Your task to perform on an android device: Open Youtube and go to the subscriptions tab Image 0: 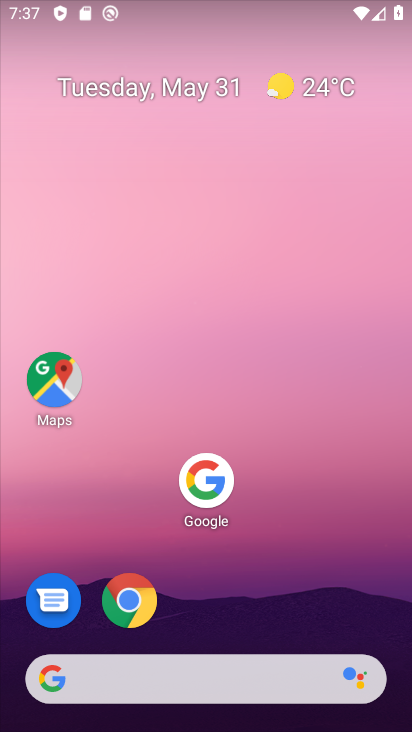
Step 0: drag from (268, 682) to (248, 244)
Your task to perform on an android device: Open Youtube and go to the subscriptions tab Image 1: 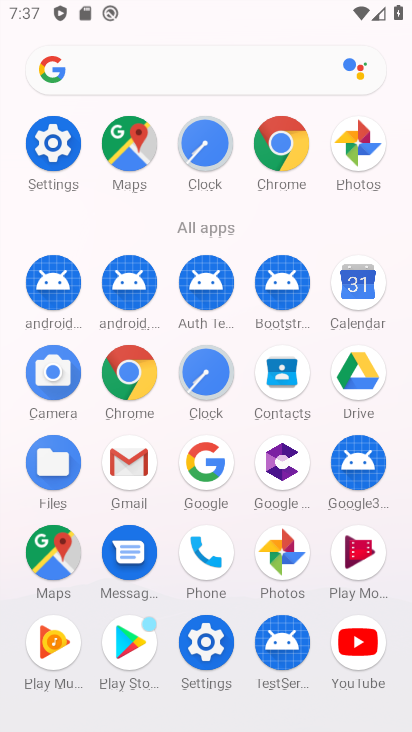
Step 1: click (358, 639)
Your task to perform on an android device: Open Youtube and go to the subscriptions tab Image 2: 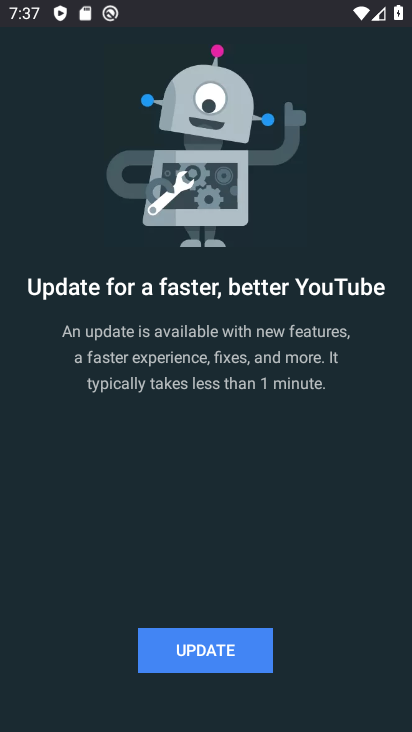
Step 2: click (232, 640)
Your task to perform on an android device: Open Youtube and go to the subscriptions tab Image 3: 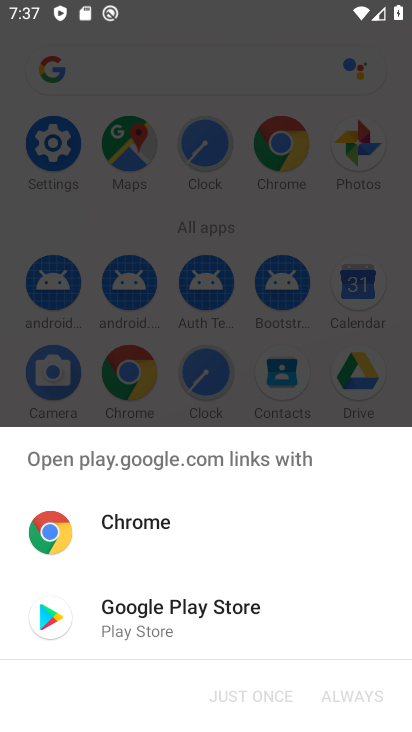
Step 3: click (158, 608)
Your task to perform on an android device: Open Youtube and go to the subscriptions tab Image 4: 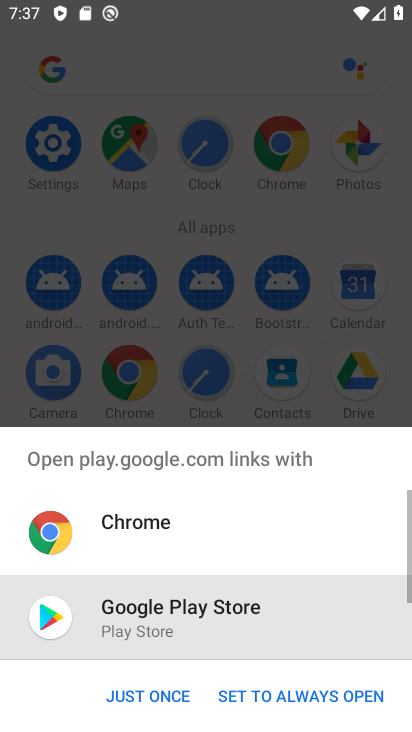
Step 4: click (177, 696)
Your task to perform on an android device: Open Youtube and go to the subscriptions tab Image 5: 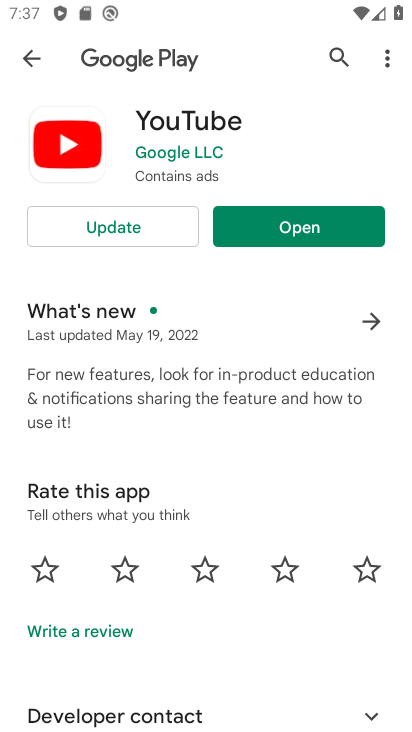
Step 5: click (135, 230)
Your task to perform on an android device: Open Youtube and go to the subscriptions tab Image 6: 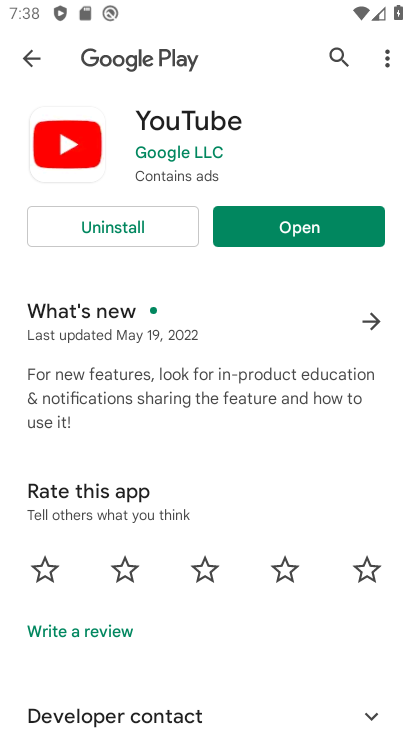
Step 6: click (316, 230)
Your task to perform on an android device: Open Youtube and go to the subscriptions tab Image 7: 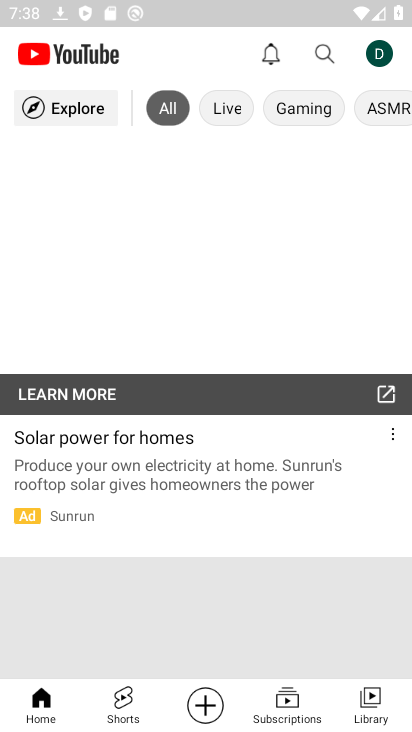
Step 7: click (290, 712)
Your task to perform on an android device: Open Youtube and go to the subscriptions tab Image 8: 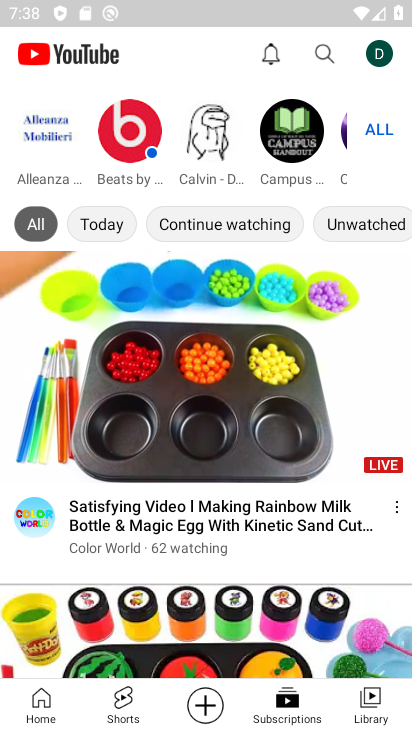
Step 8: task complete